Your task to perform on an android device: turn off priority inbox in the gmail app Image 0: 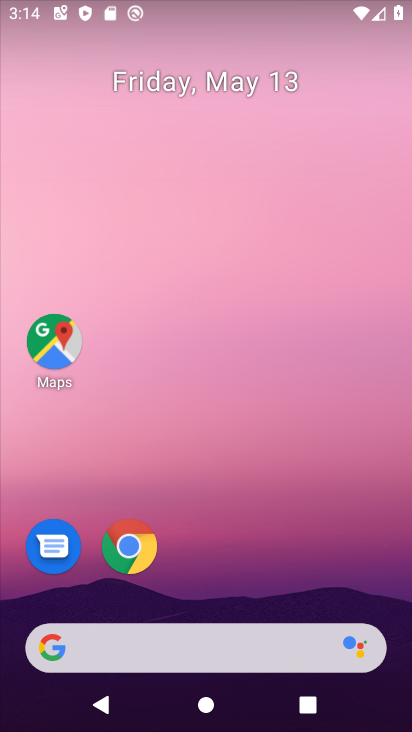
Step 0: click (403, 310)
Your task to perform on an android device: turn off priority inbox in the gmail app Image 1: 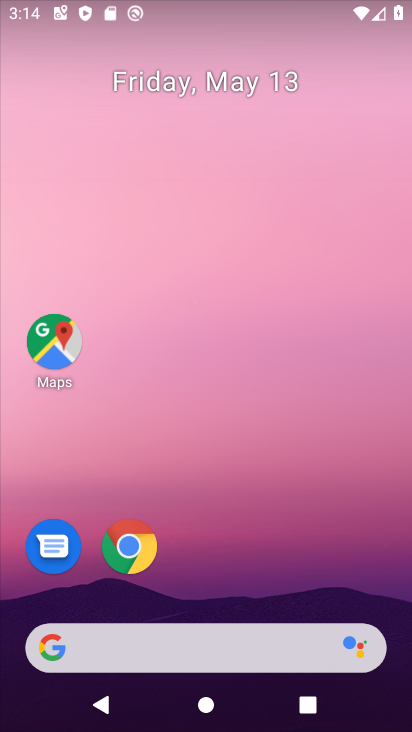
Step 1: drag from (198, 621) to (316, 171)
Your task to perform on an android device: turn off priority inbox in the gmail app Image 2: 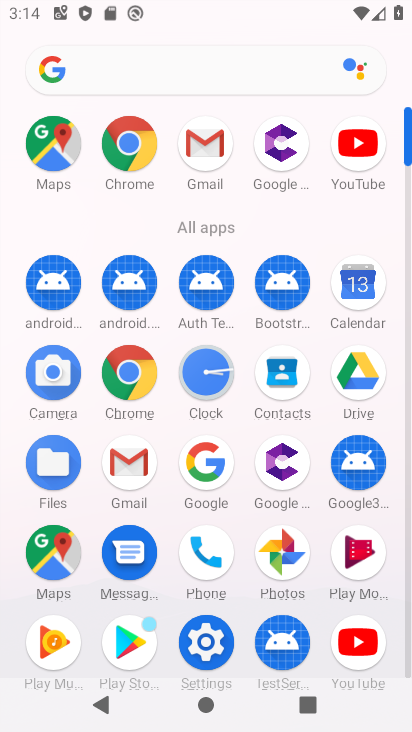
Step 2: drag from (121, 632) to (175, 491)
Your task to perform on an android device: turn off priority inbox in the gmail app Image 3: 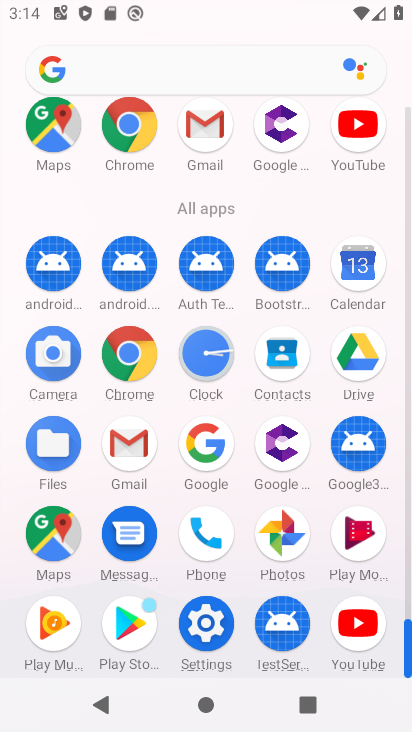
Step 3: click (213, 632)
Your task to perform on an android device: turn off priority inbox in the gmail app Image 4: 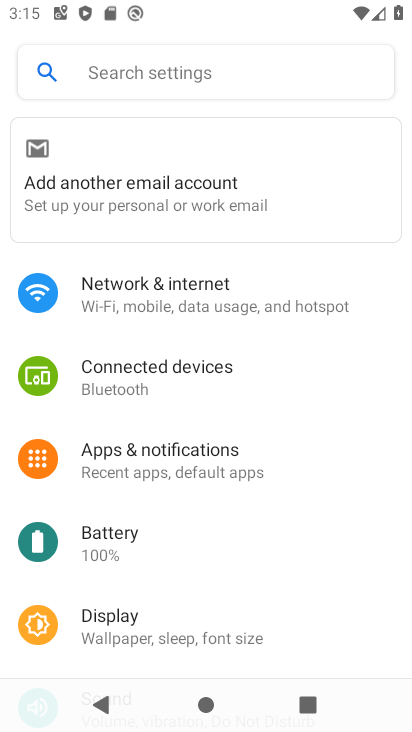
Step 4: press back button
Your task to perform on an android device: turn off priority inbox in the gmail app Image 5: 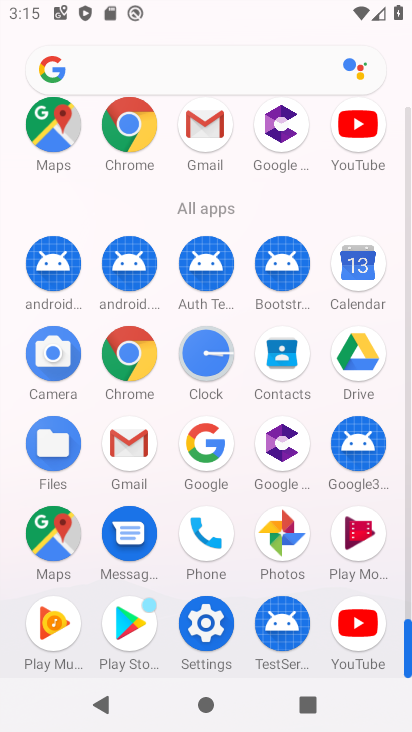
Step 5: click (125, 449)
Your task to perform on an android device: turn off priority inbox in the gmail app Image 6: 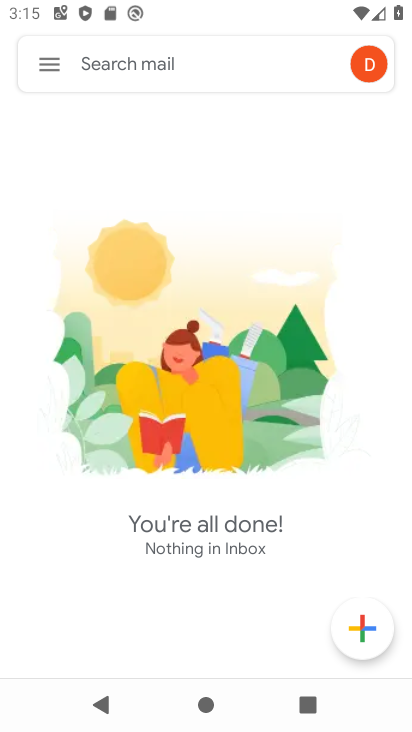
Step 6: click (56, 73)
Your task to perform on an android device: turn off priority inbox in the gmail app Image 7: 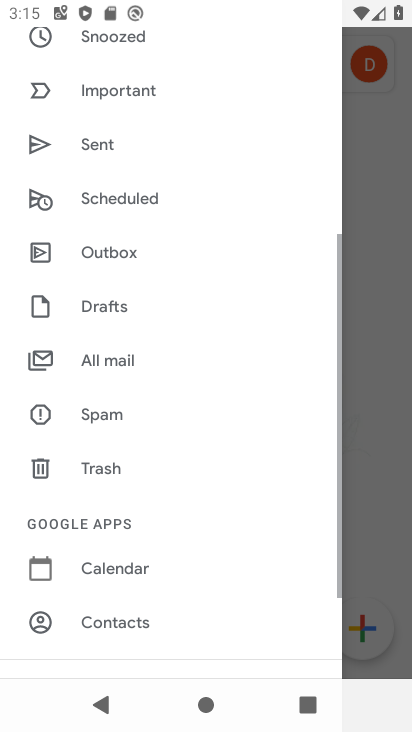
Step 7: drag from (166, 590) to (275, 326)
Your task to perform on an android device: turn off priority inbox in the gmail app Image 8: 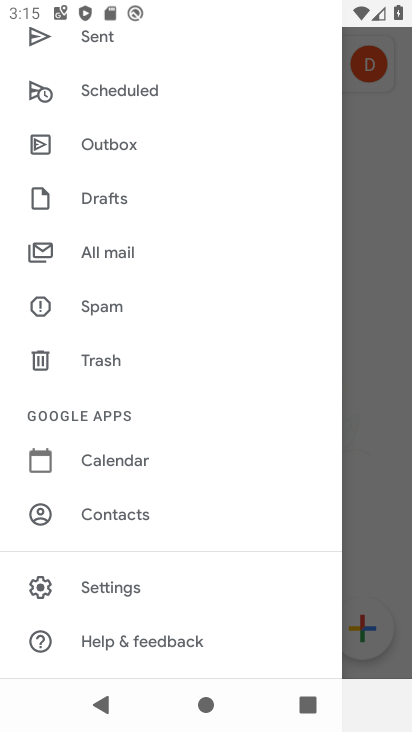
Step 8: click (154, 598)
Your task to perform on an android device: turn off priority inbox in the gmail app Image 9: 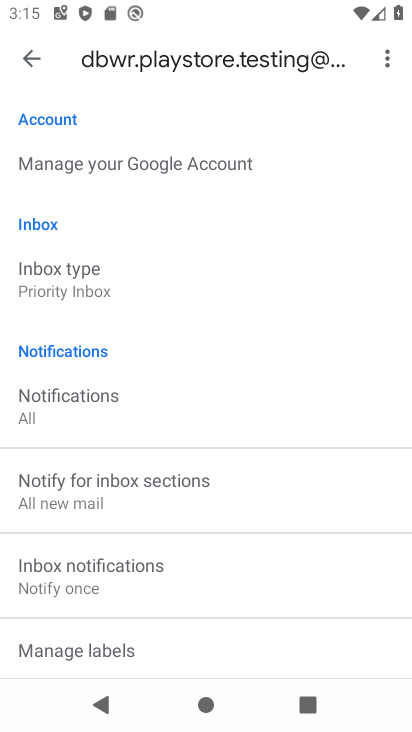
Step 9: drag from (158, 606) to (280, 316)
Your task to perform on an android device: turn off priority inbox in the gmail app Image 10: 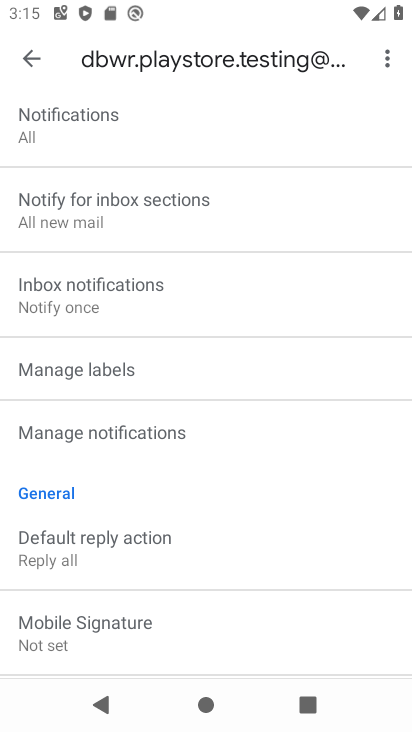
Step 10: drag from (163, 245) to (152, 664)
Your task to perform on an android device: turn off priority inbox in the gmail app Image 11: 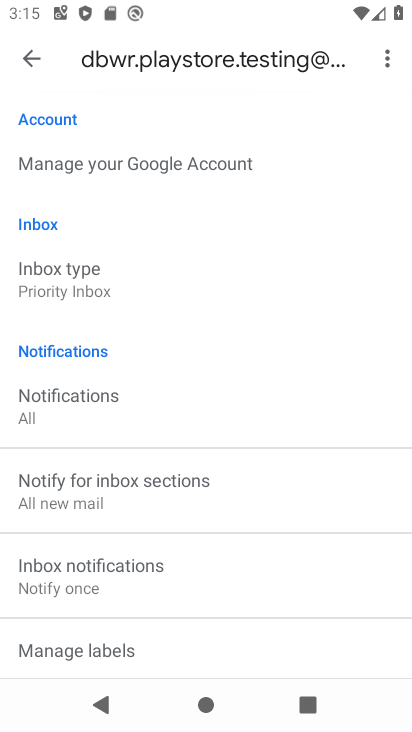
Step 11: click (164, 281)
Your task to perform on an android device: turn off priority inbox in the gmail app Image 12: 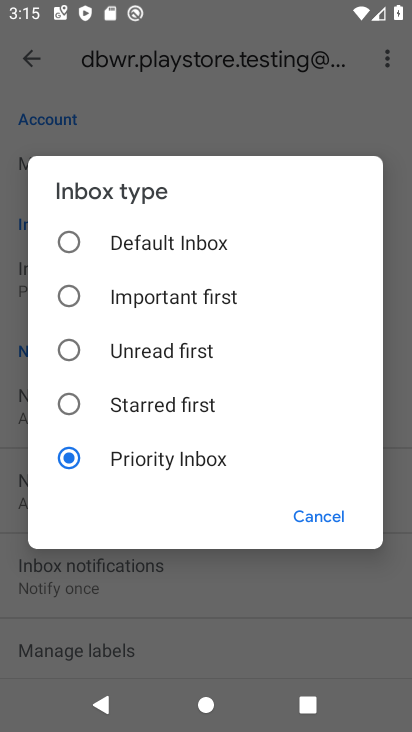
Step 12: click (116, 249)
Your task to perform on an android device: turn off priority inbox in the gmail app Image 13: 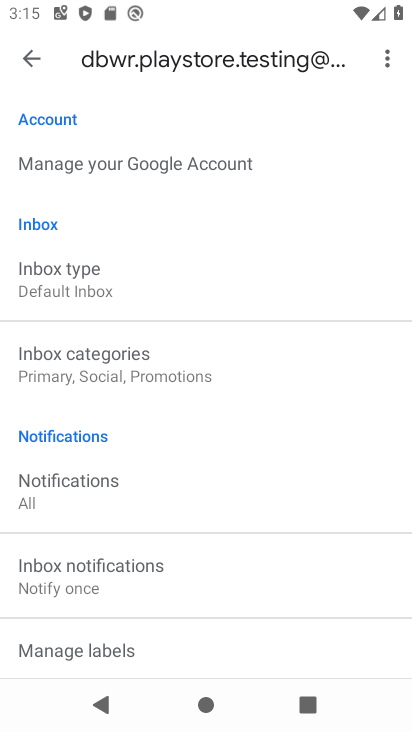
Step 13: task complete